Your task to perform on an android device: Open the web browser Image 0: 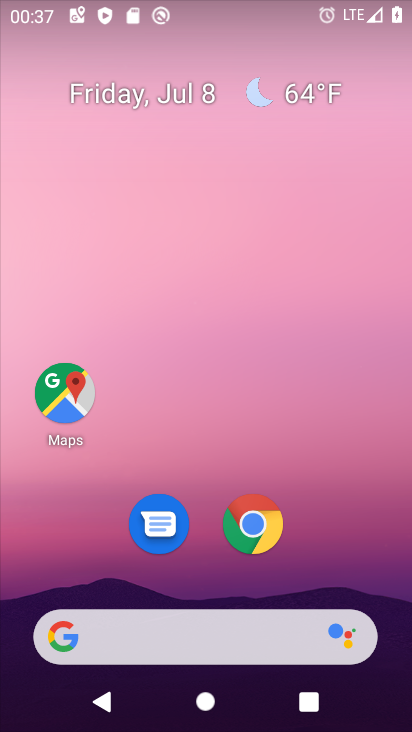
Step 0: drag from (311, 513) to (306, 444)
Your task to perform on an android device: Open the web browser Image 1: 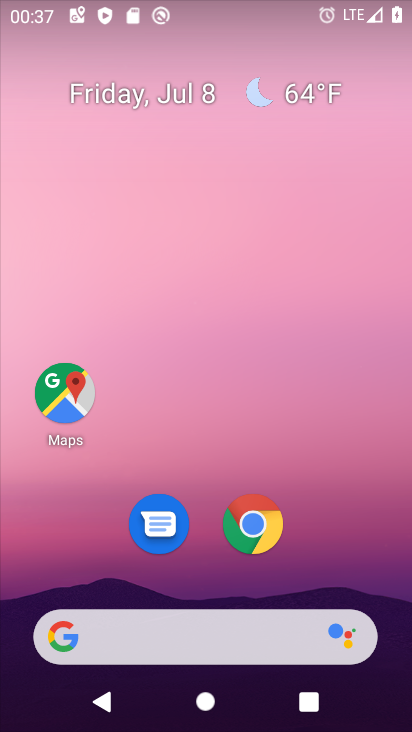
Step 1: click (204, 635)
Your task to perform on an android device: Open the web browser Image 2: 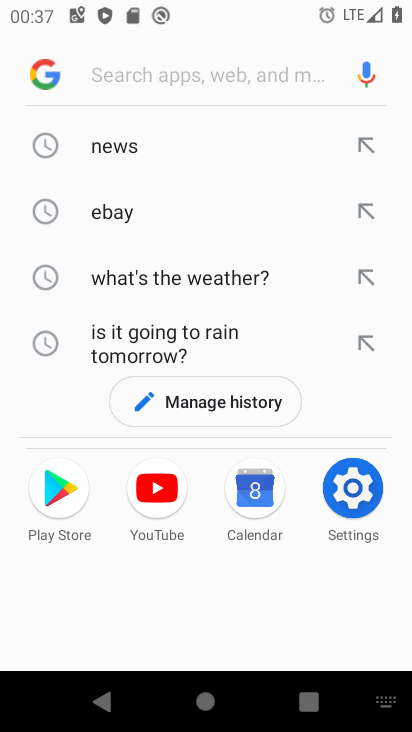
Step 2: task complete